Your task to perform on an android device: Go to Amazon Image 0: 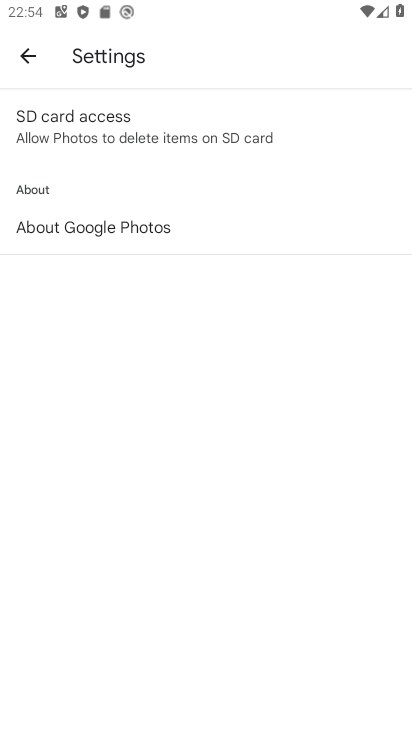
Step 0: press home button
Your task to perform on an android device: Go to Amazon Image 1: 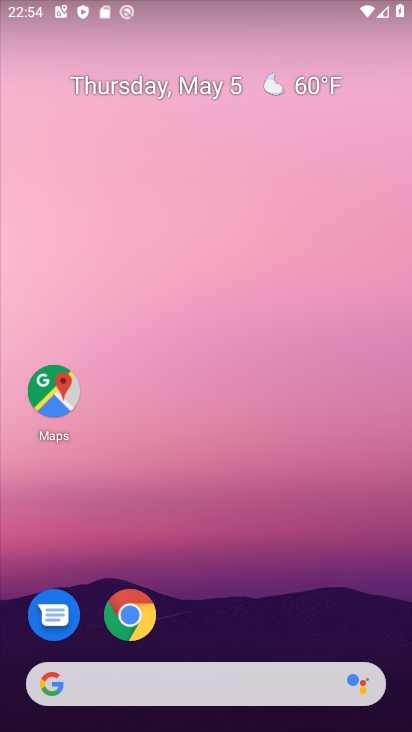
Step 1: click (134, 613)
Your task to perform on an android device: Go to Amazon Image 2: 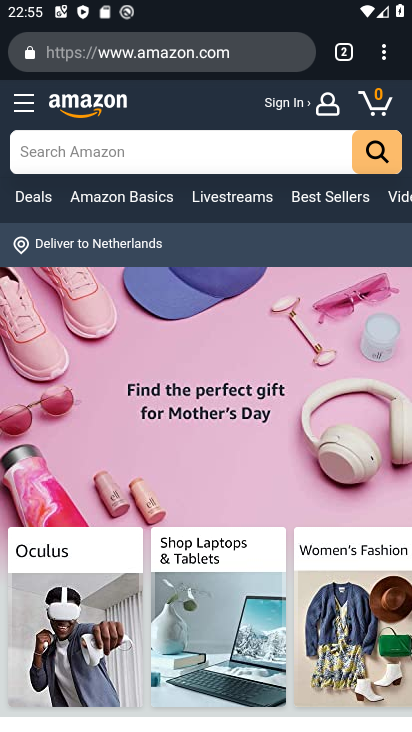
Step 2: task complete